Your task to perform on an android device: Open calendar and show me the third week of next month Image 0: 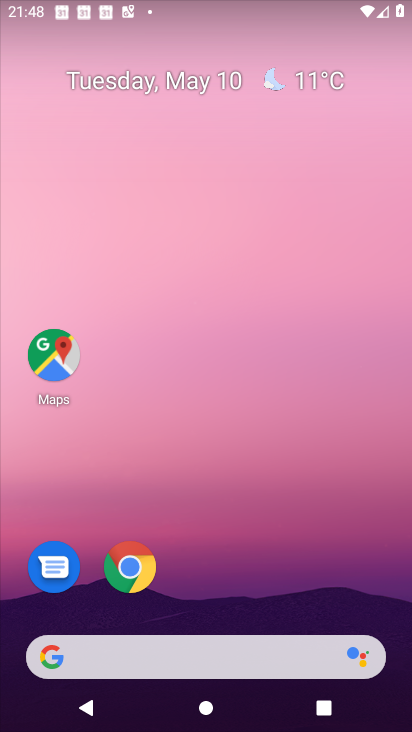
Step 0: drag from (199, 634) to (206, 281)
Your task to perform on an android device: Open calendar and show me the third week of next month Image 1: 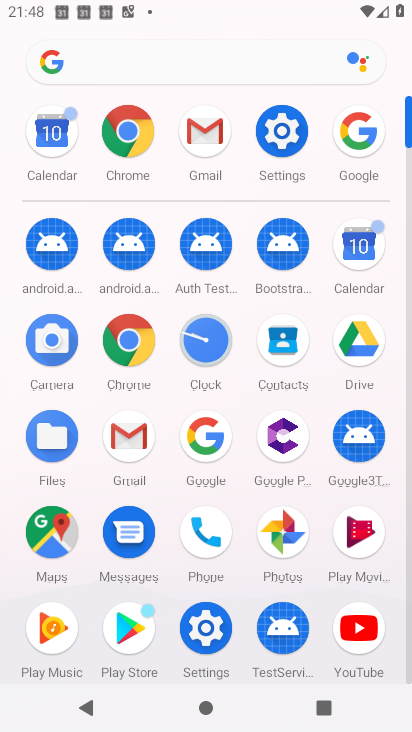
Step 1: click (339, 240)
Your task to perform on an android device: Open calendar and show me the third week of next month Image 2: 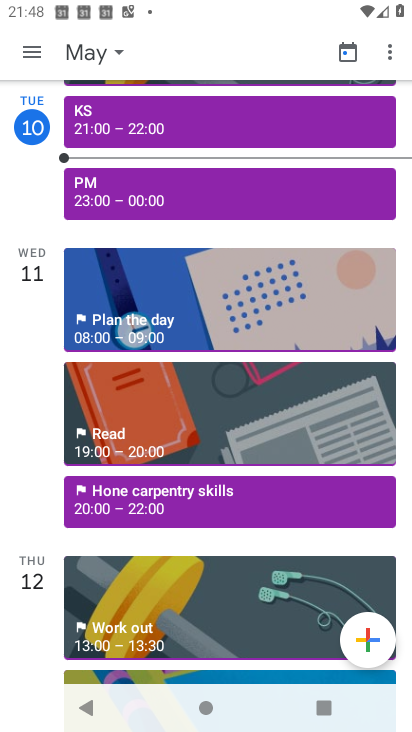
Step 2: click (101, 61)
Your task to perform on an android device: Open calendar and show me the third week of next month Image 3: 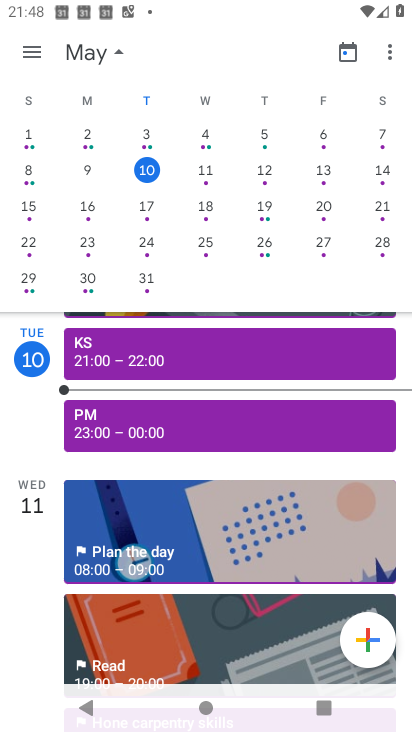
Step 3: drag from (357, 261) to (0, 267)
Your task to perform on an android device: Open calendar and show me the third week of next month Image 4: 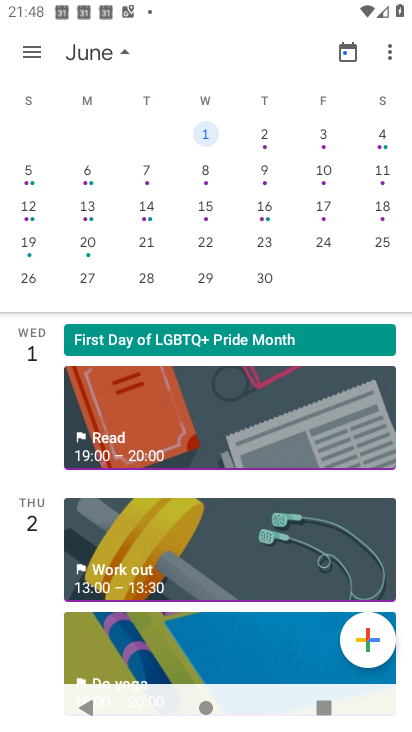
Step 4: click (31, 208)
Your task to perform on an android device: Open calendar and show me the third week of next month Image 5: 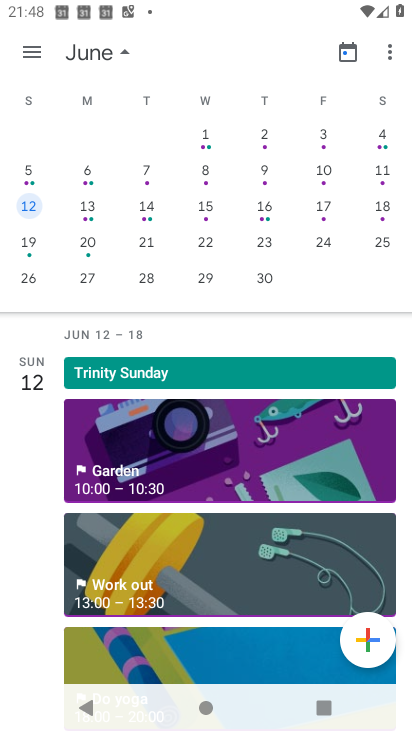
Step 5: task complete